Your task to perform on an android device: Open Chrome and go to settings Image 0: 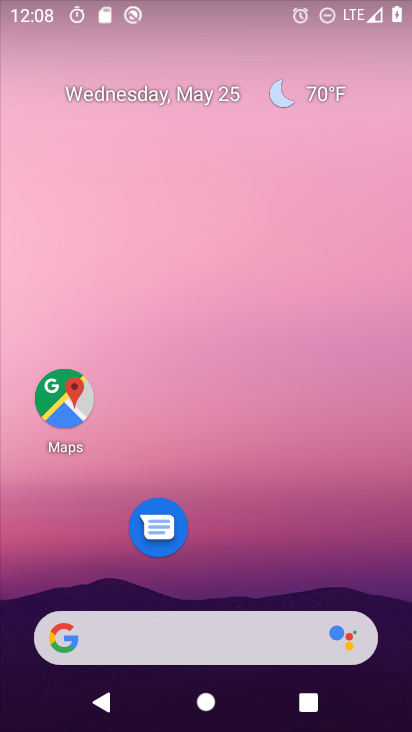
Step 0: drag from (276, 527) to (316, 86)
Your task to perform on an android device: Open Chrome and go to settings Image 1: 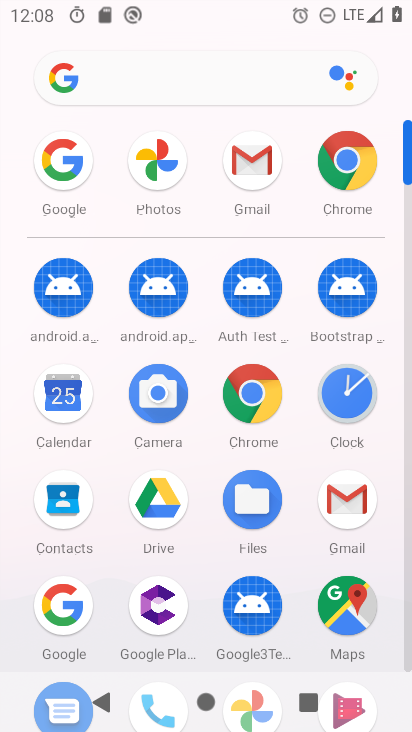
Step 1: click (350, 154)
Your task to perform on an android device: Open Chrome and go to settings Image 2: 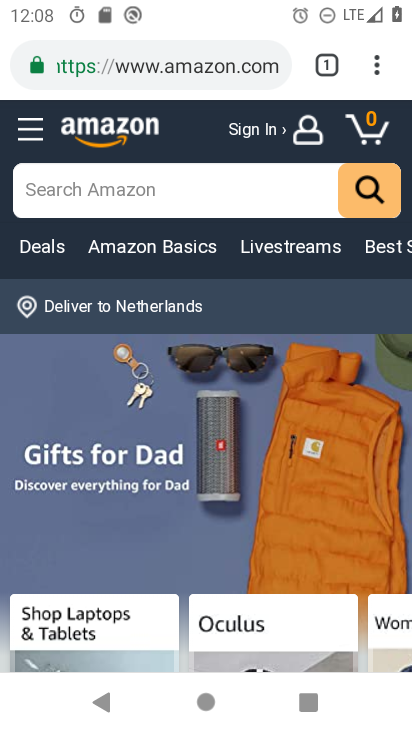
Step 2: click (370, 64)
Your task to perform on an android device: Open Chrome and go to settings Image 3: 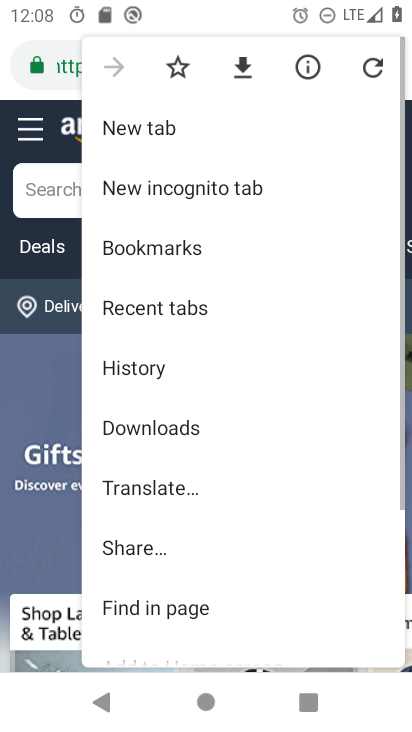
Step 3: drag from (314, 560) to (318, 106)
Your task to perform on an android device: Open Chrome and go to settings Image 4: 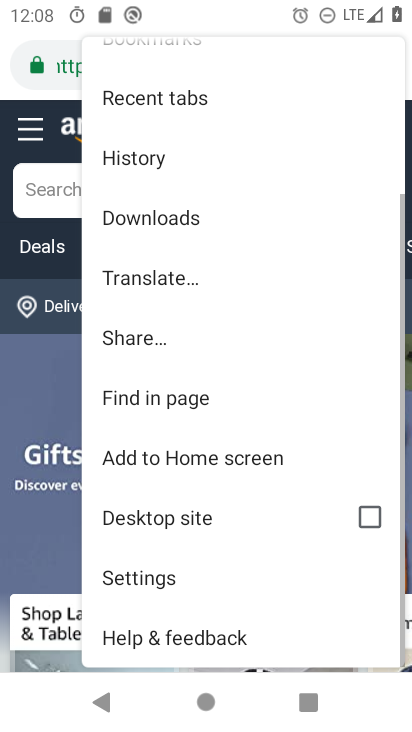
Step 4: click (197, 567)
Your task to perform on an android device: Open Chrome and go to settings Image 5: 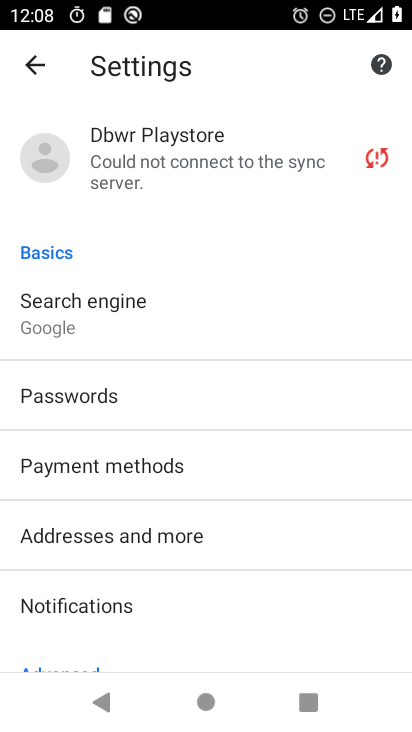
Step 5: task complete